Your task to perform on an android device: Open the calendar app, open the side menu, and click the "Day" option Image 0: 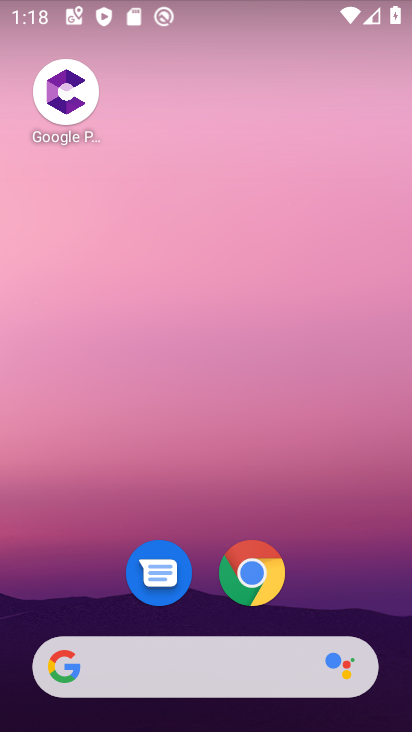
Step 0: press home button
Your task to perform on an android device: Open the calendar app, open the side menu, and click the "Day" option Image 1: 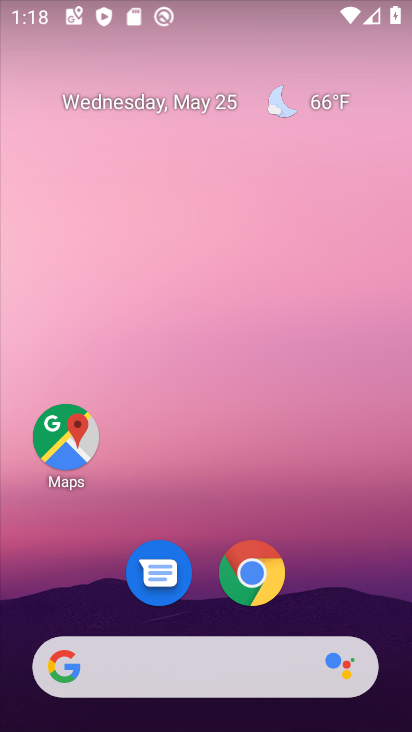
Step 1: drag from (378, 601) to (375, 0)
Your task to perform on an android device: Open the calendar app, open the side menu, and click the "Day" option Image 2: 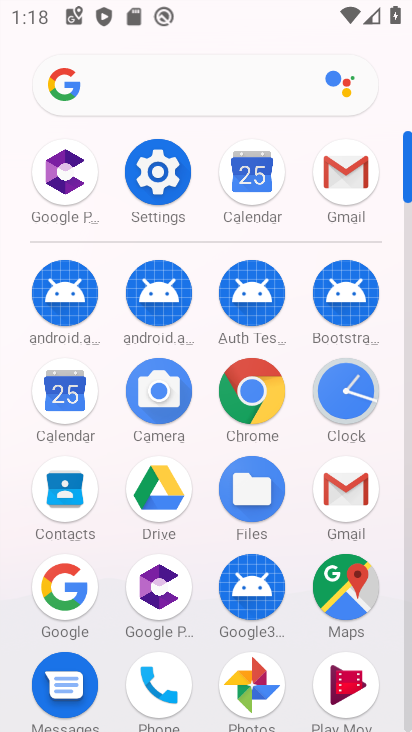
Step 2: click (408, 691)
Your task to perform on an android device: Open the calendar app, open the side menu, and click the "Day" option Image 3: 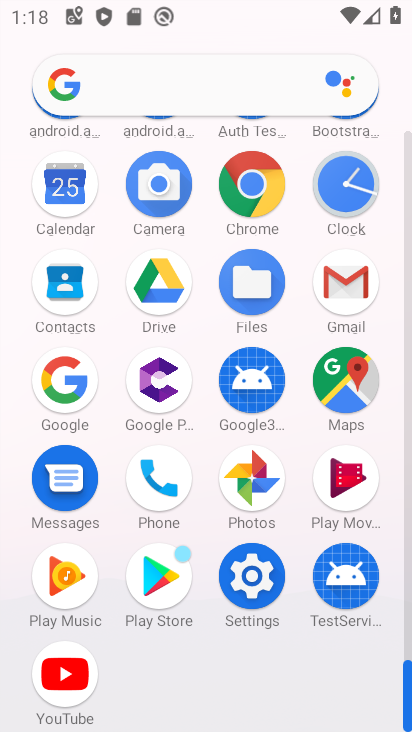
Step 3: click (63, 183)
Your task to perform on an android device: Open the calendar app, open the side menu, and click the "Day" option Image 4: 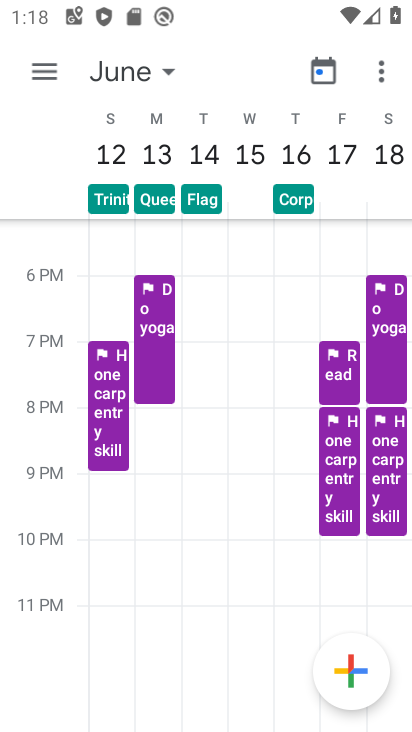
Step 4: click (41, 69)
Your task to perform on an android device: Open the calendar app, open the side menu, and click the "Day" option Image 5: 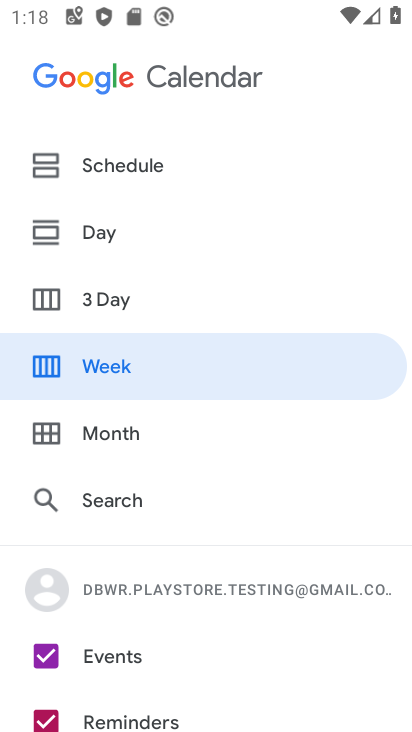
Step 5: click (105, 232)
Your task to perform on an android device: Open the calendar app, open the side menu, and click the "Day" option Image 6: 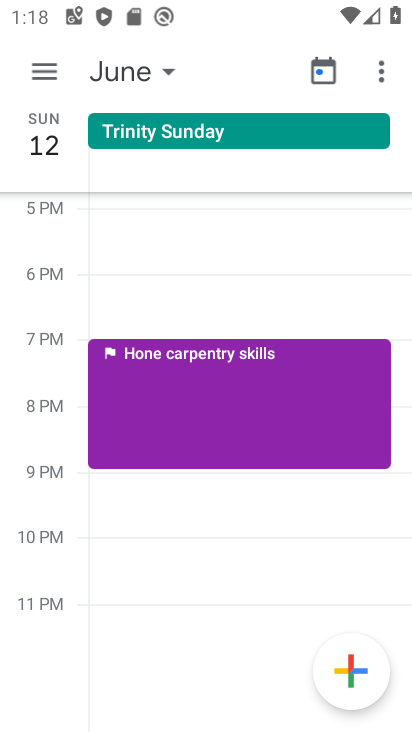
Step 6: click (42, 70)
Your task to perform on an android device: Open the calendar app, open the side menu, and click the "Day" option Image 7: 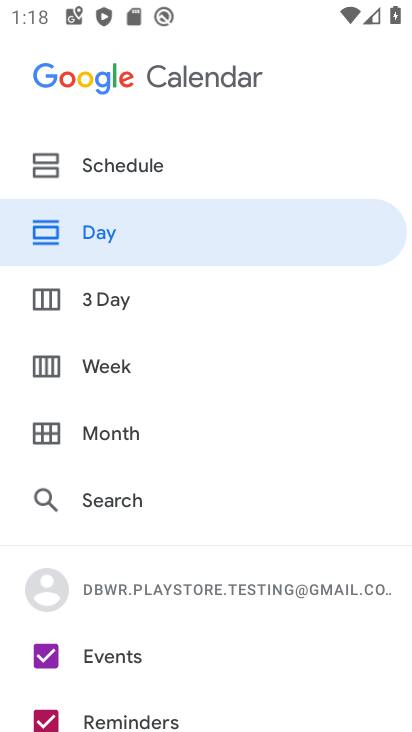
Step 7: click (142, 227)
Your task to perform on an android device: Open the calendar app, open the side menu, and click the "Day" option Image 8: 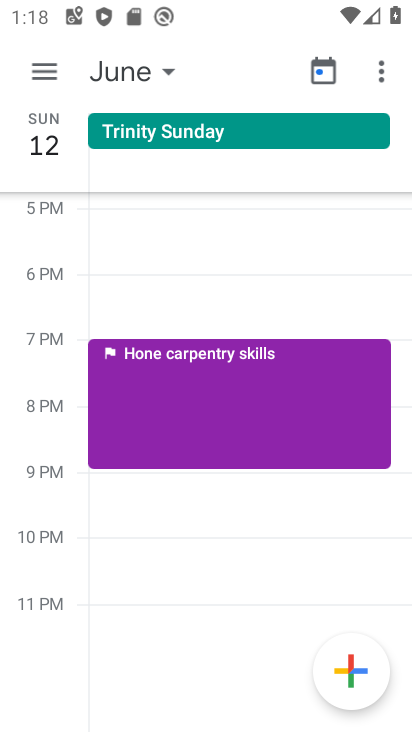
Step 8: task complete